Your task to perform on an android device: Go to CNN.com Image 0: 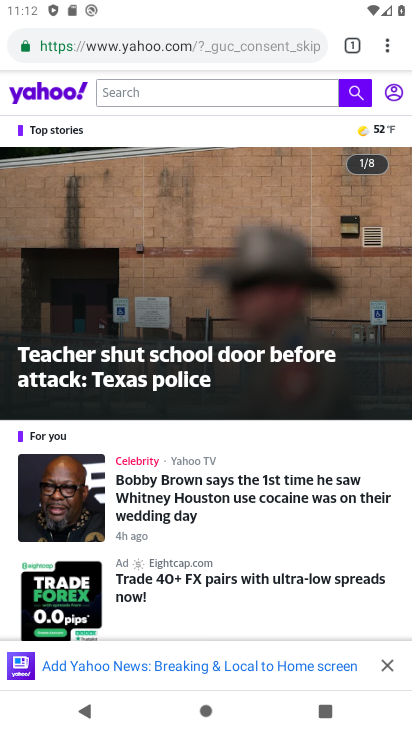
Step 0: press home button
Your task to perform on an android device: Go to CNN.com Image 1: 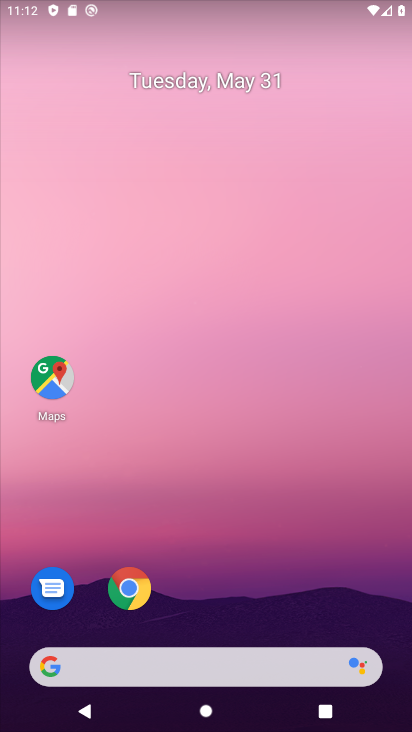
Step 1: click (126, 582)
Your task to perform on an android device: Go to CNN.com Image 2: 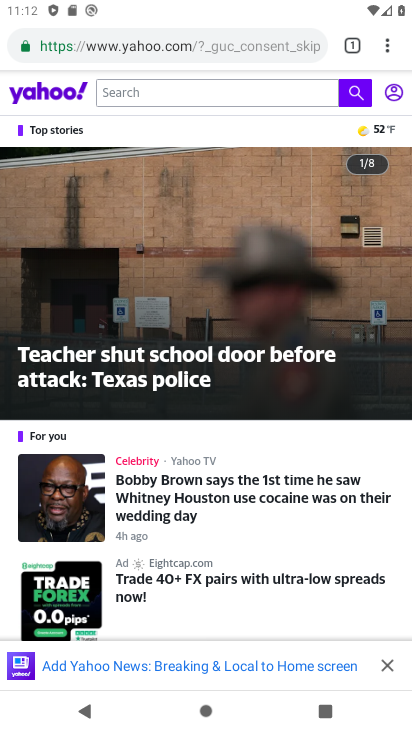
Step 2: click (121, 47)
Your task to perform on an android device: Go to CNN.com Image 3: 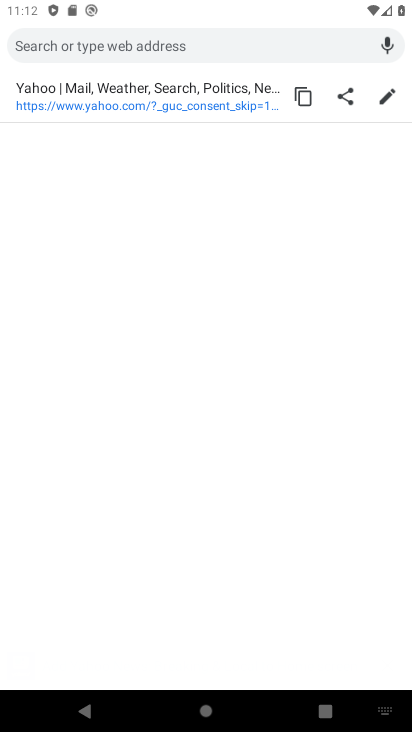
Step 3: type "CNN.com"
Your task to perform on an android device: Go to CNN.com Image 4: 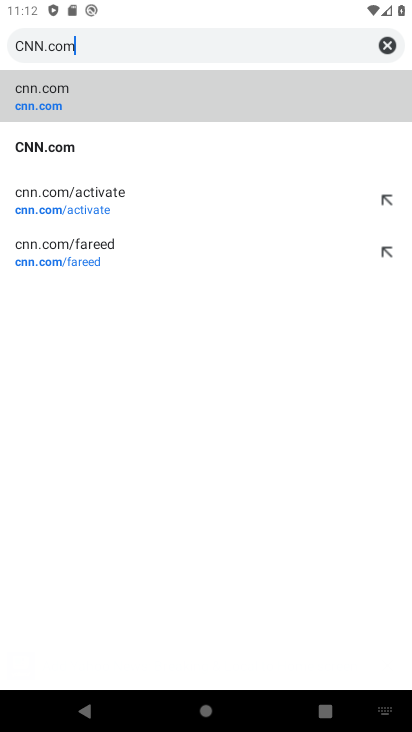
Step 4: click (54, 154)
Your task to perform on an android device: Go to CNN.com Image 5: 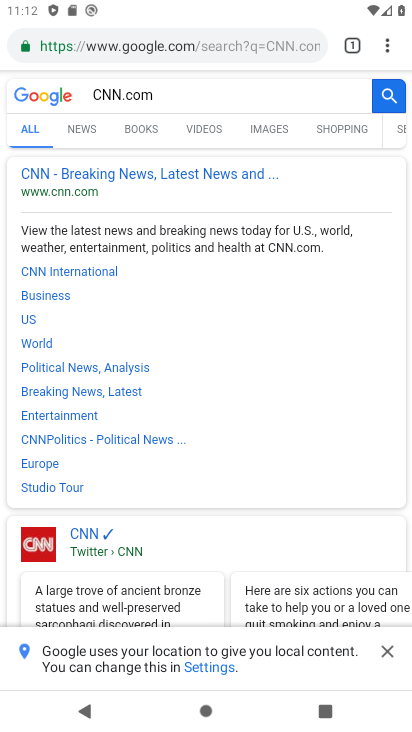
Step 5: task complete